Your task to perform on an android device: Search for pizza restaurants on Maps Image 0: 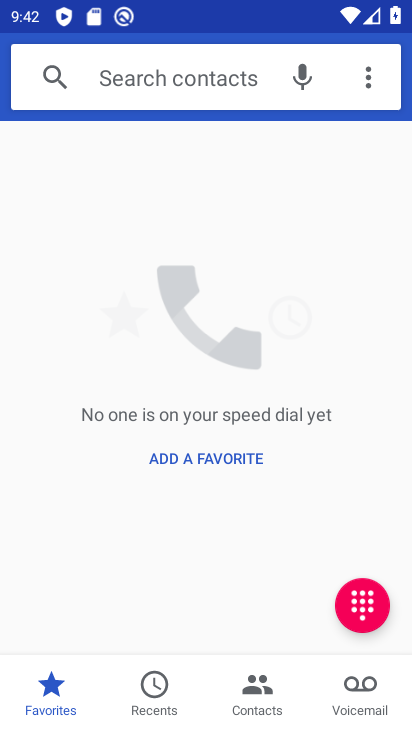
Step 0: press home button
Your task to perform on an android device: Search for pizza restaurants on Maps Image 1: 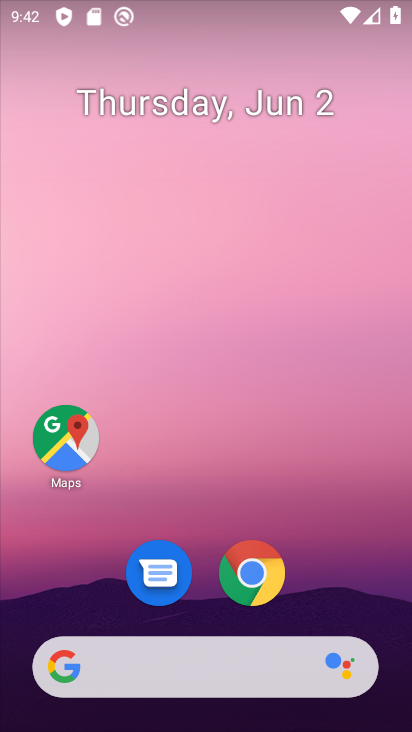
Step 1: click (46, 428)
Your task to perform on an android device: Search for pizza restaurants on Maps Image 2: 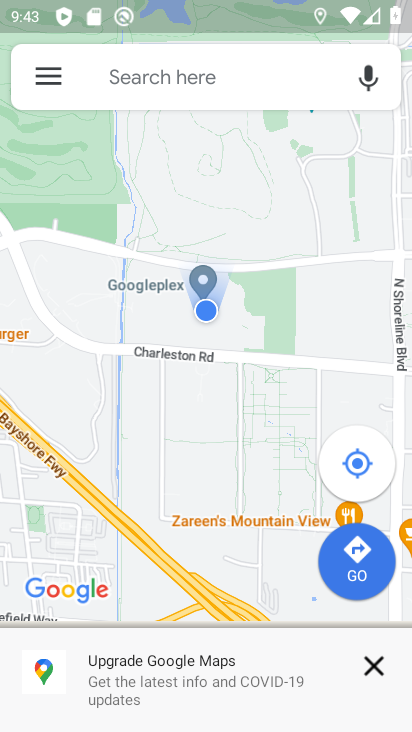
Step 2: click (211, 87)
Your task to perform on an android device: Search for pizza restaurants on Maps Image 3: 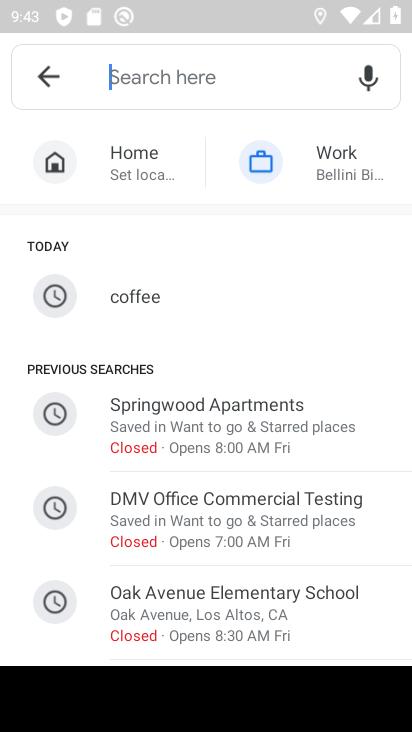
Step 3: type "pizza restaurants"
Your task to perform on an android device: Search for pizza restaurants on Maps Image 4: 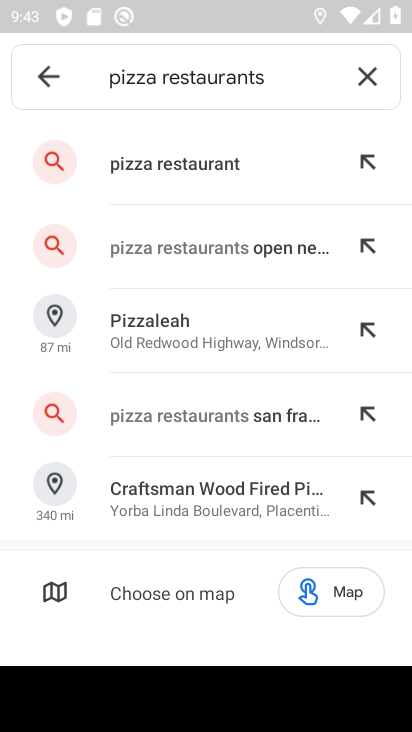
Step 4: click (257, 160)
Your task to perform on an android device: Search for pizza restaurants on Maps Image 5: 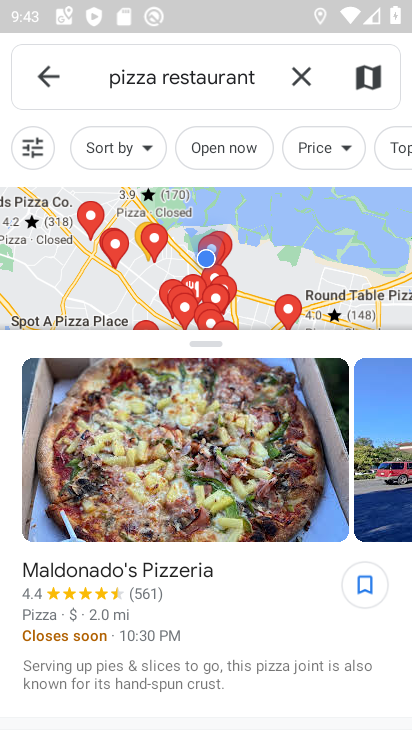
Step 5: task complete